Your task to perform on an android device: Open calendar and show me the second week of next month Image 0: 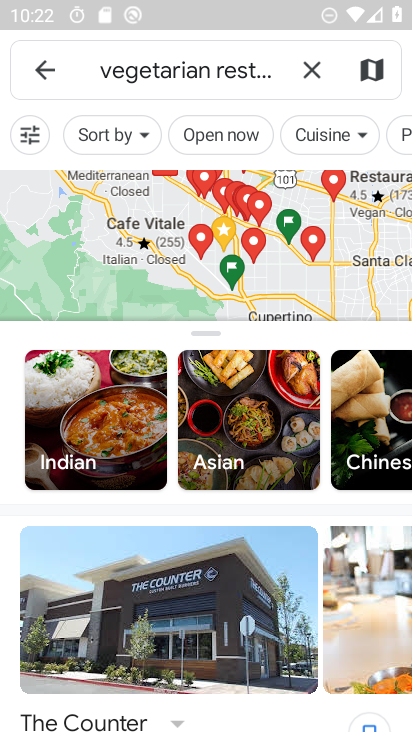
Step 0: press home button
Your task to perform on an android device: Open calendar and show me the second week of next month Image 1: 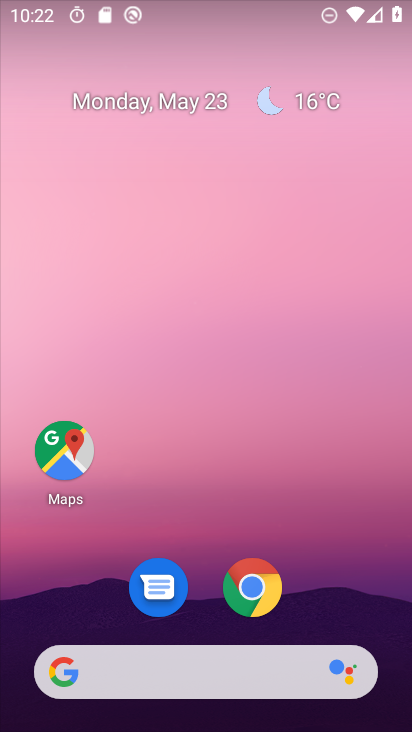
Step 1: drag from (214, 473) to (275, 26)
Your task to perform on an android device: Open calendar and show me the second week of next month Image 2: 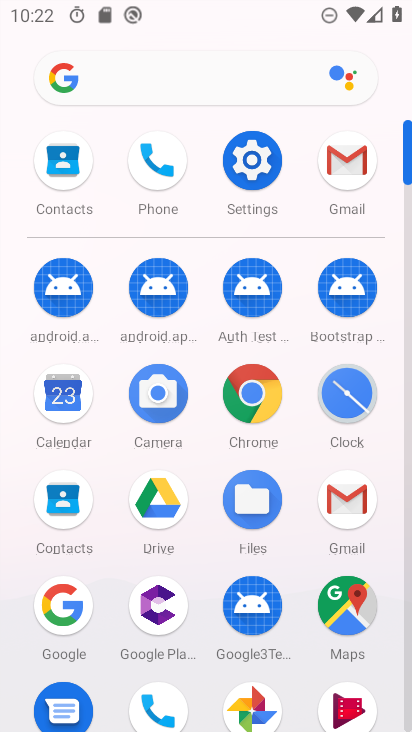
Step 2: click (59, 397)
Your task to perform on an android device: Open calendar and show me the second week of next month Image 3: 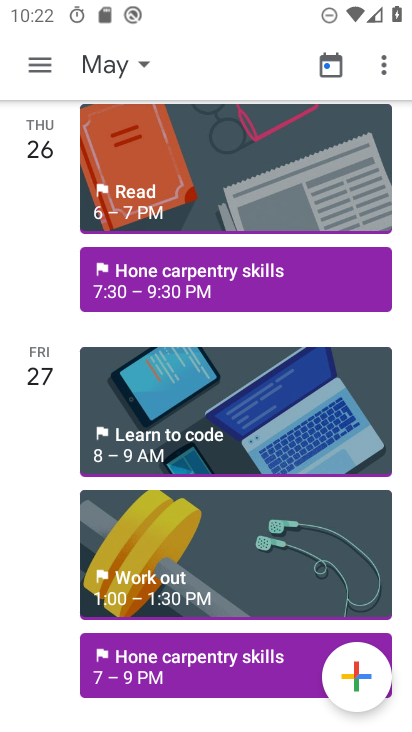
Step 3: click (120, 70)
Your task to perform on an android device: Open calendar and show me the second week of next month Image 4: 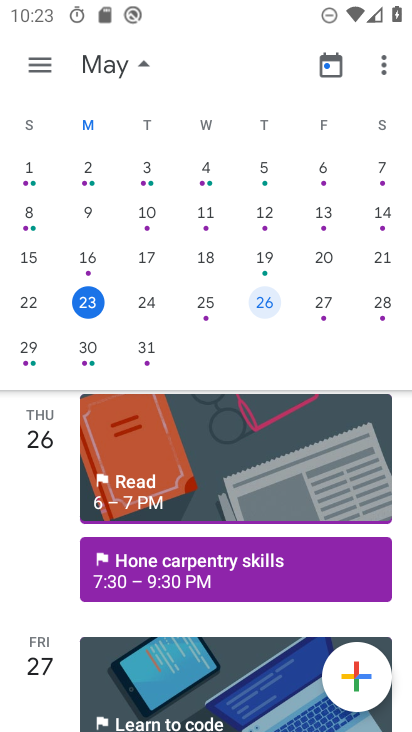
Step 4: drag from (346, 265) to (10, 282)
Your task to perform on an android device: Open calendar and show me the second week of next month Image 5: 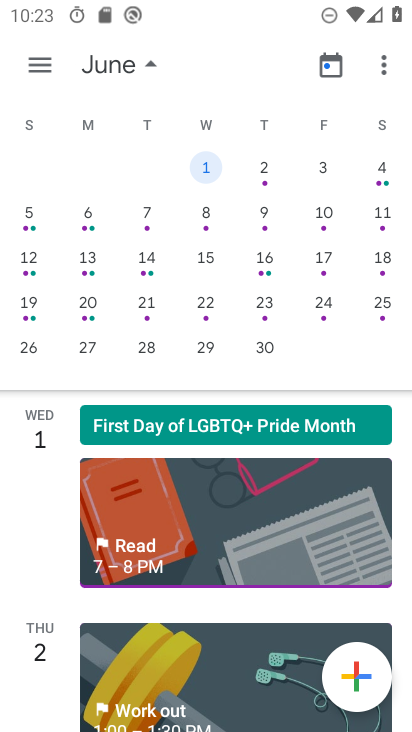
Step 5: click (89, 221)
Your task to perform on an android device: Open calendar and show me the second week of next month Image 6: 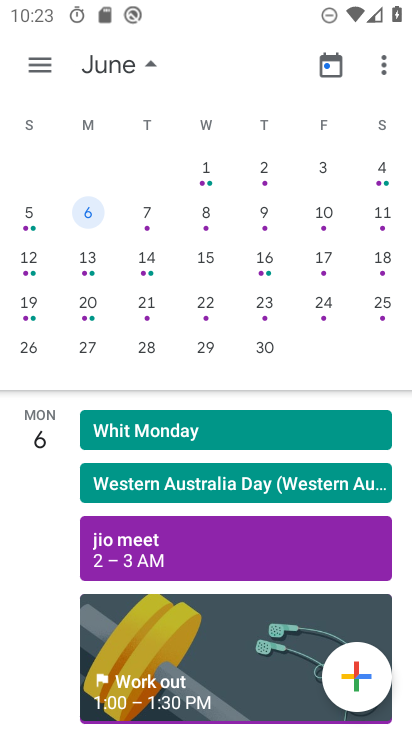
Step 6: task complete